Your task to perform on an android device: turn on improve location accuracy Image 0: 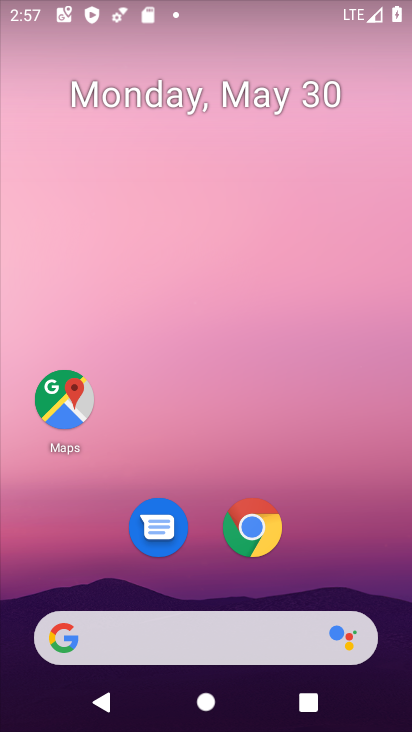
Step 0: drag from (298, 572) to (332, 136)
Your task to perform on an android device: turn on improve location accuracy Image 1: 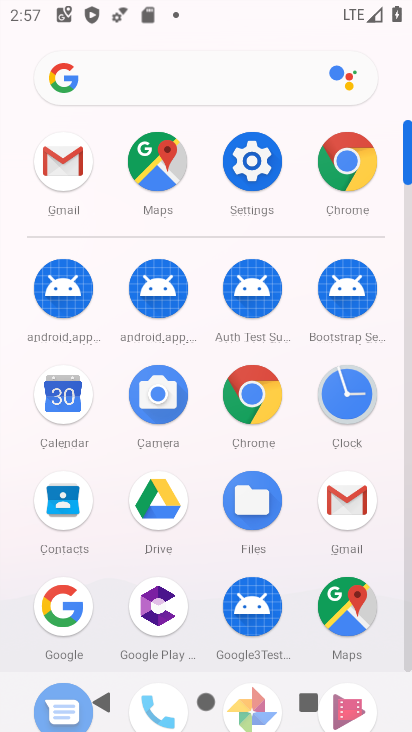
Step 1: click (251, 155)
Your task to perform on an android device: turn on improve location accuracy Image 2: 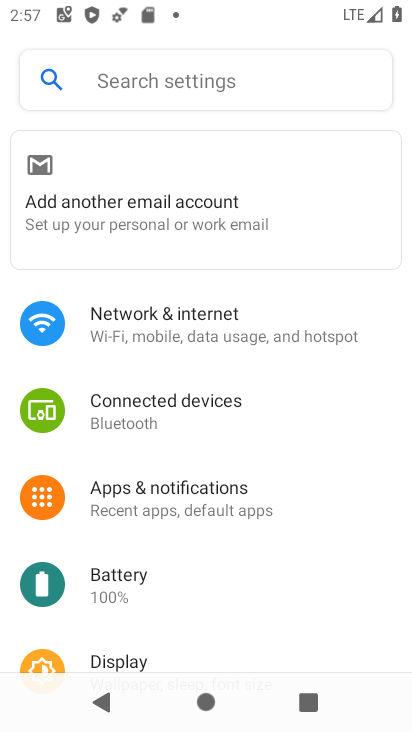
Step 2: drag from (279, 592) to (304, 174)
Your task to perform on an android device: turn on improve location accuracy Image 3: 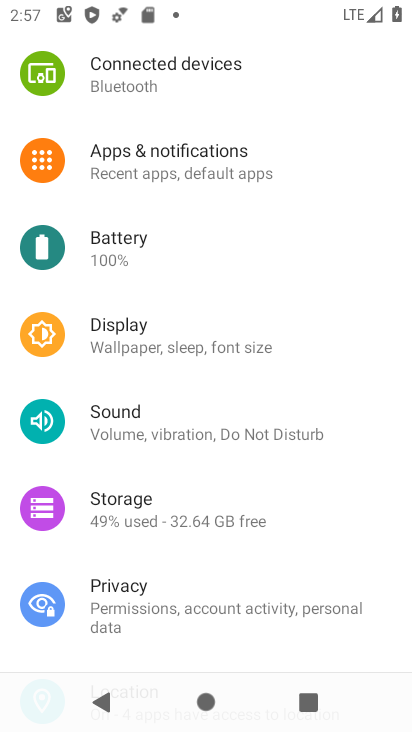
Step 3: drag from (269, 569) to (322, 208)
Your task to perform on an android device: turn on improve location accuracy Image 4: 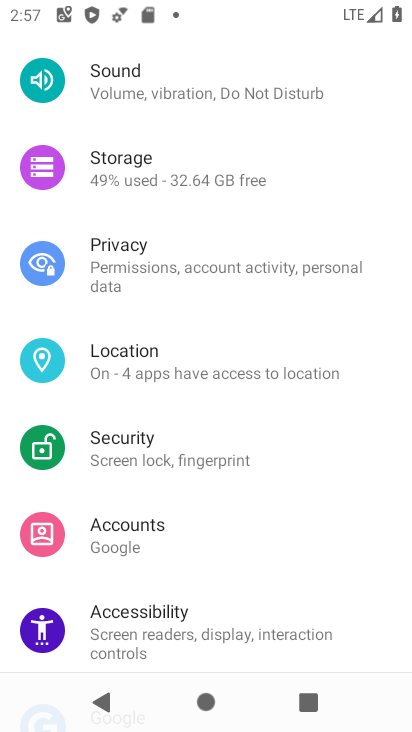
Step 4: click (172, 361)
Your task to perform on an android device: turn on improve location accuracy Image 5: 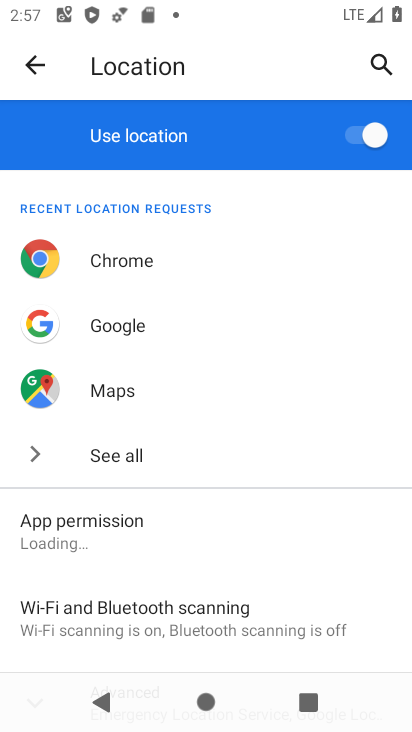
Step 5: drag from (282, 527) to (293, 124)
Your task to perform on an android device: turn on improve location accuracy Image 6: 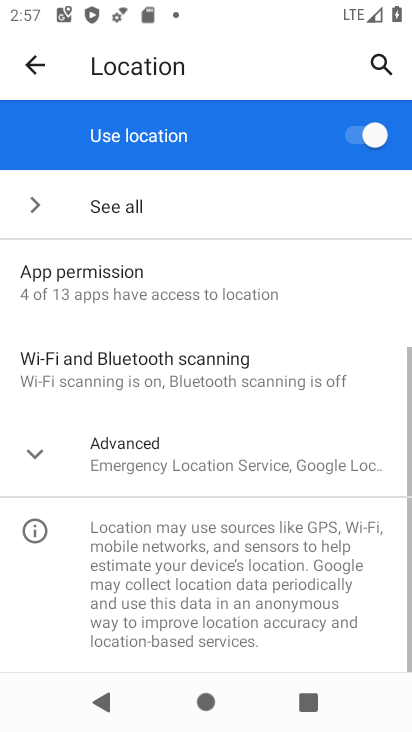
Step 6: click (211, 459)
Your task to perform on an android device: turn on improve location accuracy Image 7: 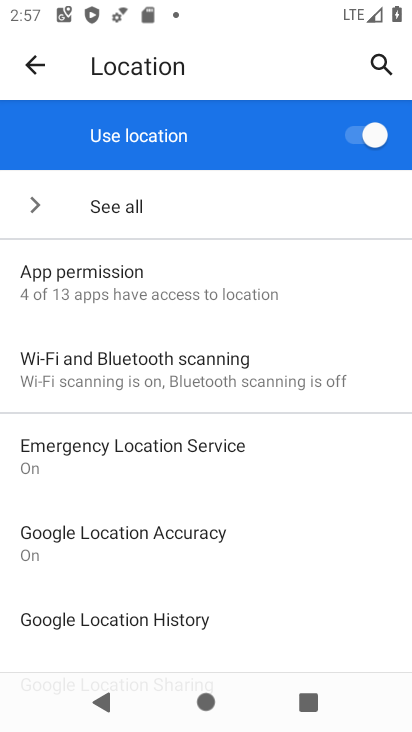
Step 7: click (83, 519)
Your task to perform on an android device: turn on improve location accuracy Image 8: 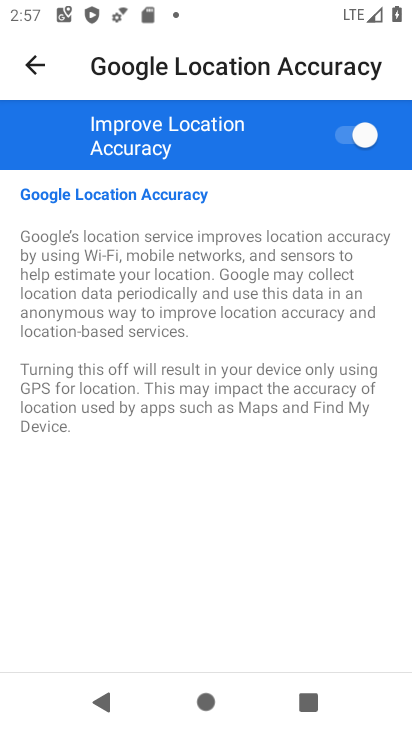
Step 8: task complete